Your task to perform on an android device: delete a single message in the gmail app Image 0: 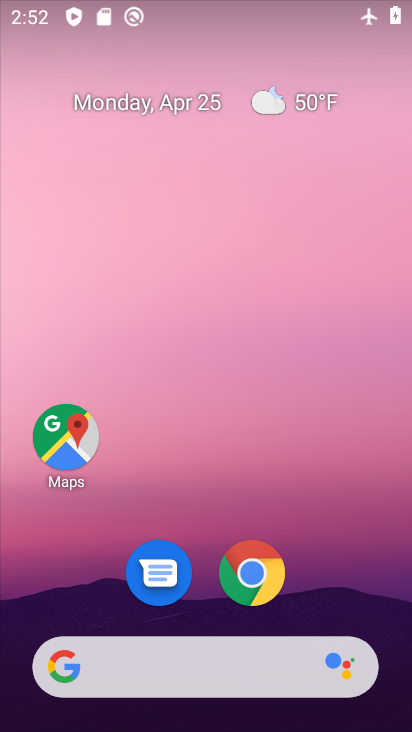
Step 0: drag from (353, 515) to (312, 21)
Your task to perform on an android device: delete a single message in the gmail app Image 1: 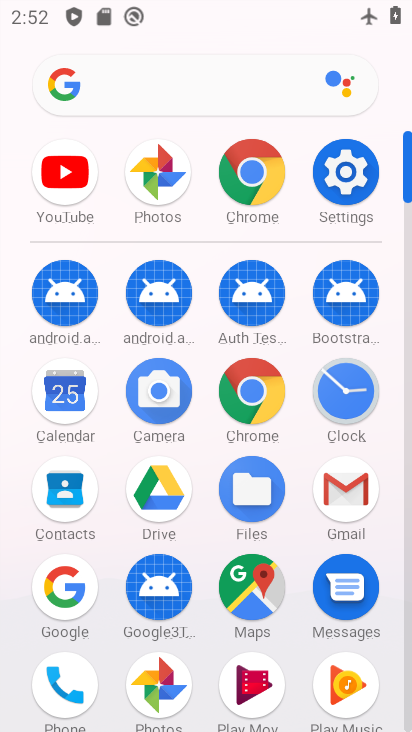
Step 1: click (343, 476)
Your task to perform on an android device: delete a single message in the gmail app Image 2: 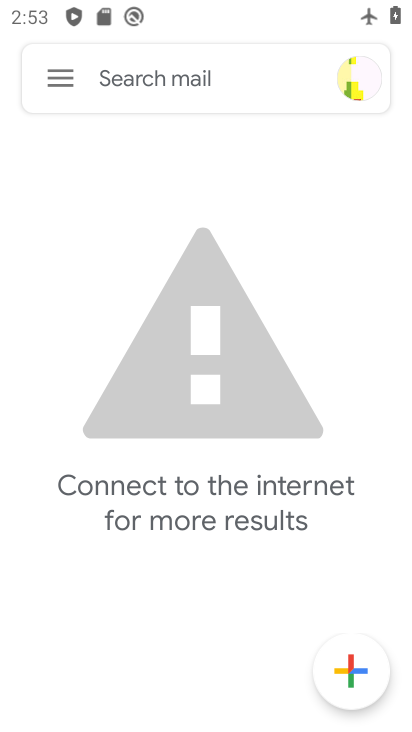
Step 2: task complete